Your task to perform on an android device: Go to location settings Image 0: 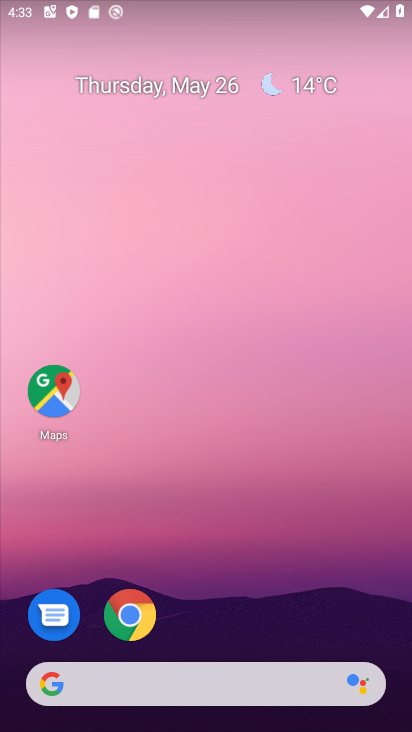
Step 0: drag from (254, 591) to (296, 233)
Your task to perform on an android device: Go to location settings Image 1: 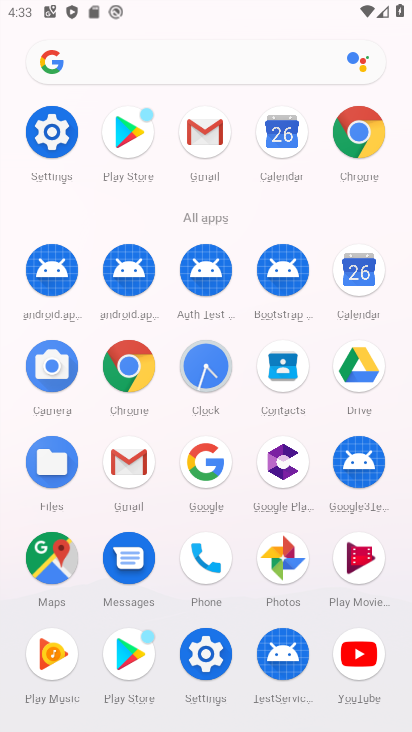
Step 1: click (46, 118)
Your task to perform on an android device: Go to location settings Image 2: 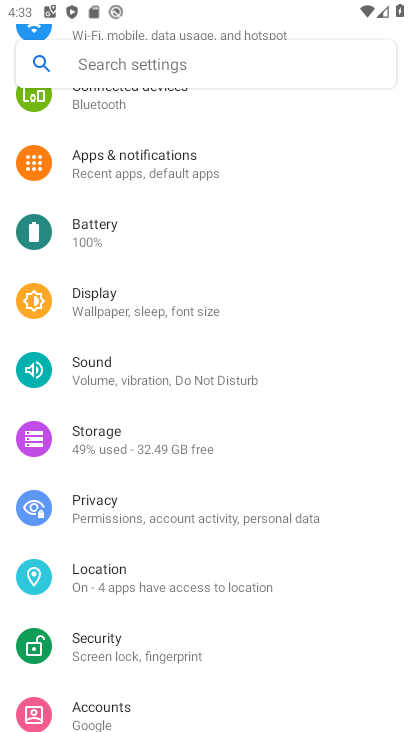
Step 2: click (192, 571)
Your task to perform on an android device: Go to location settings Image 3: 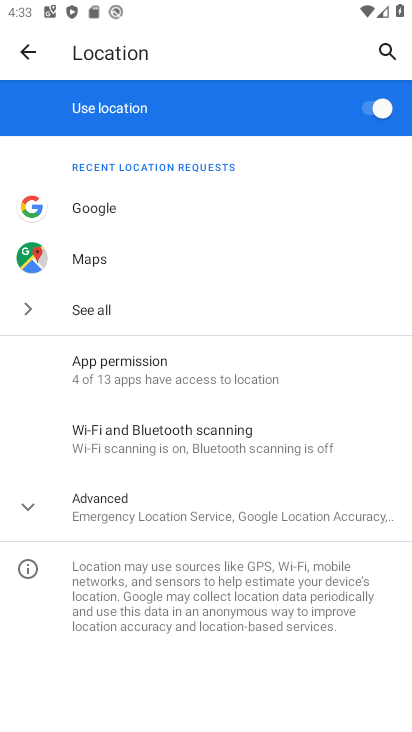
Step 3: task complete